Your task to perform on an android device: turn on improve location accuracy Image 0: 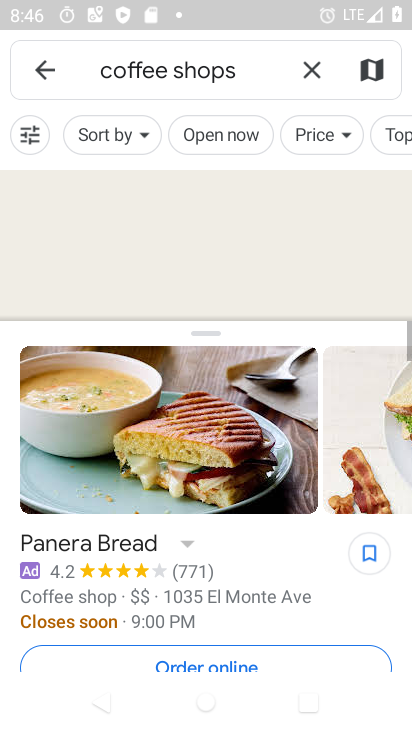
Step 0: press home button
Your task to perform on an android device: turn on improve location accuracy Image 1: 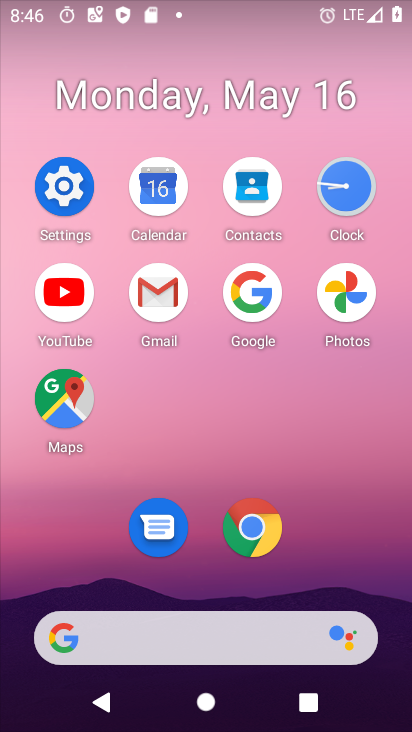
Step 1: click (75, 185)
Your task to perform on an android device: turn on improve location accuracy Image 2: 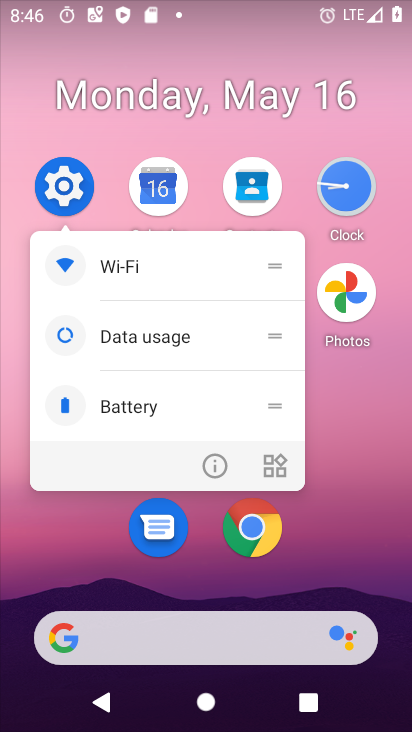
Step 2: click (62, 192)
Your task to perform on an android device: turn on improve location accuracy Image 3: 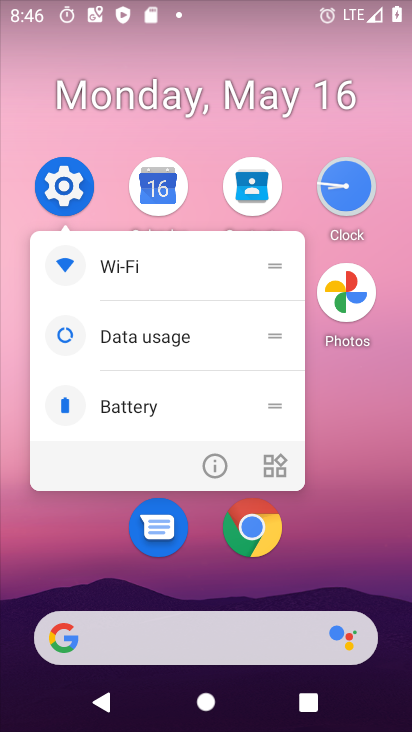
Step 3: click (70, 196)
Your task to perform on an android device: turn on improve location accuracy Image 4: 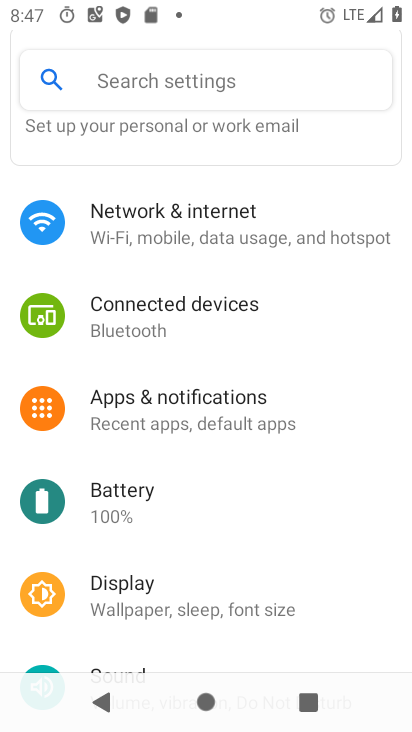
Step 4: drag from (244, 502) to (260, 153)
Your task to perform on an android device: turn on improve location accuracy Image 5: 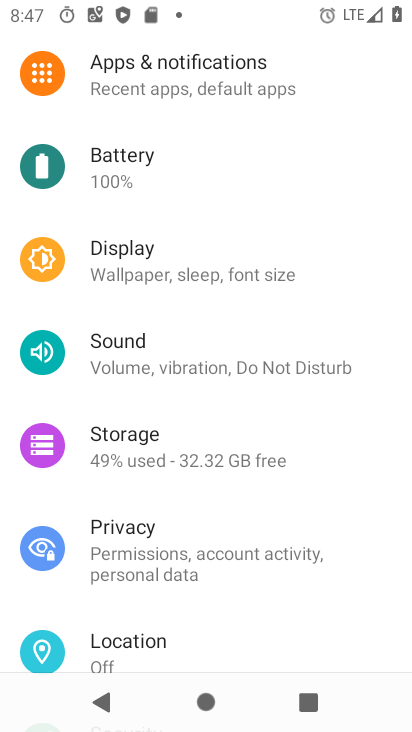
Step 5: drag from (219, 490) to (225, 183)
Your task to perform on an android device: turn on improve location accuracy Image 6: 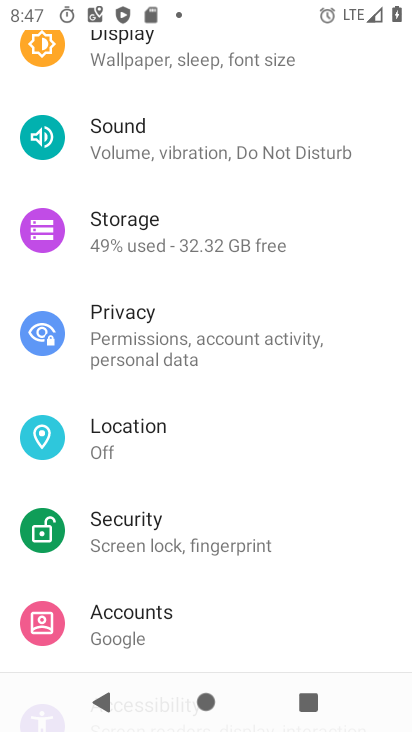
Step 6: drag from (189, 540) to (207, 233)
Your task to perform on an android device: turn on improve location accuracy Image 7: 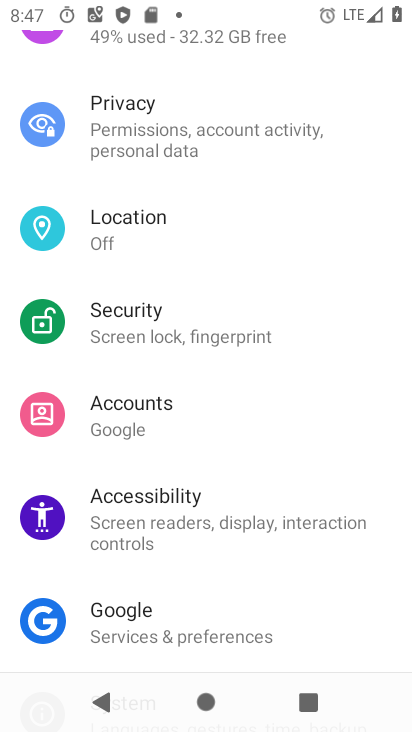
Step 7: click (189, 226)
Your task to perform on an android device: turn on improve location accuracy Image 8: 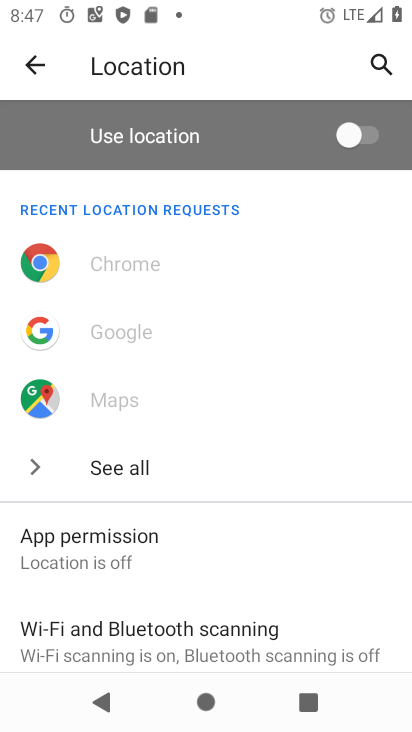
Step 8: drag from (190, 577) to (219, 203)
Your task to perform on an android device: turn on improve location accuracy Image 9: 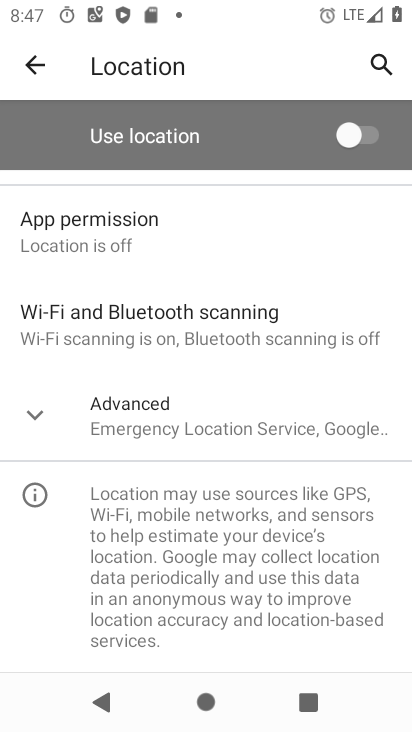
Step 9: click (190, 408)
Your task to perform on an android device: turn on improve location accuracy Image 10: 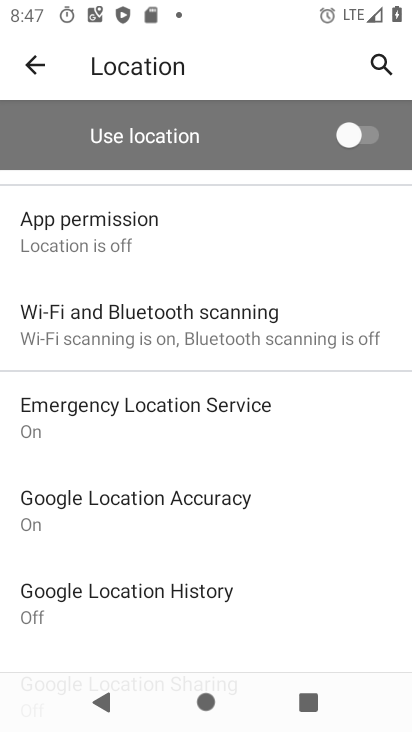
Step 10: click (205, 513)
Your task to perform on an android device: turn on improve location accuracy Image 11: 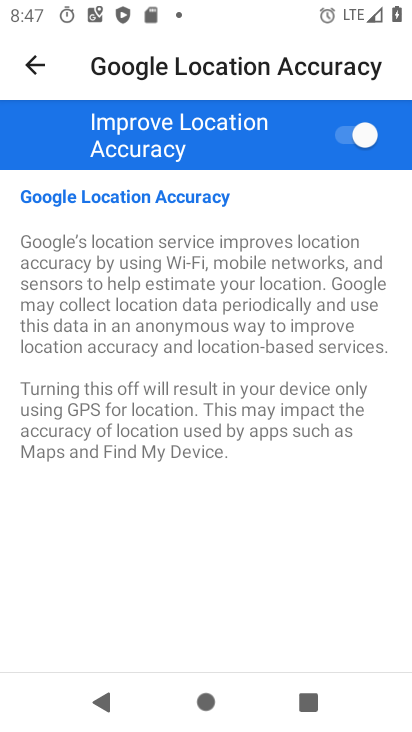
Step 11: task complete